Your task to perform on an android device: turn off data saver in the chrome app Image 0: 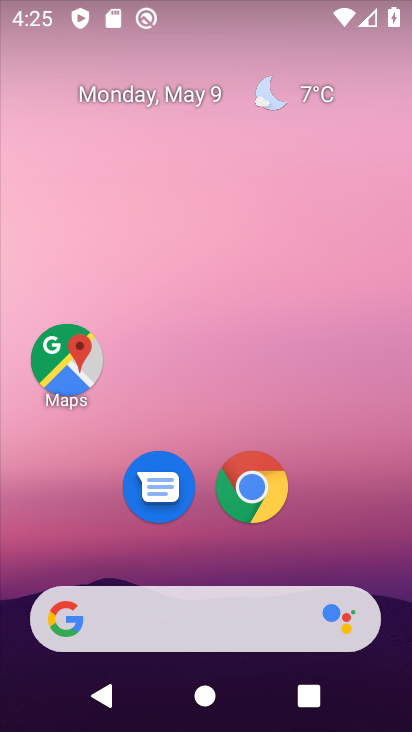
Step 0: drag from (209, 568) to (265, 38)
Your task to perform on an android device: turn off data saver in the chrome app Image 1: 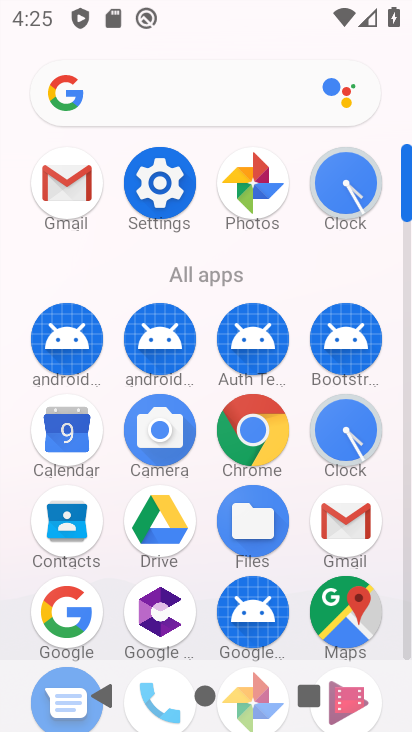
Step 1: click (231, 437)
Your task to perform on an android device: turn off data saver in the chrome app Image 2: 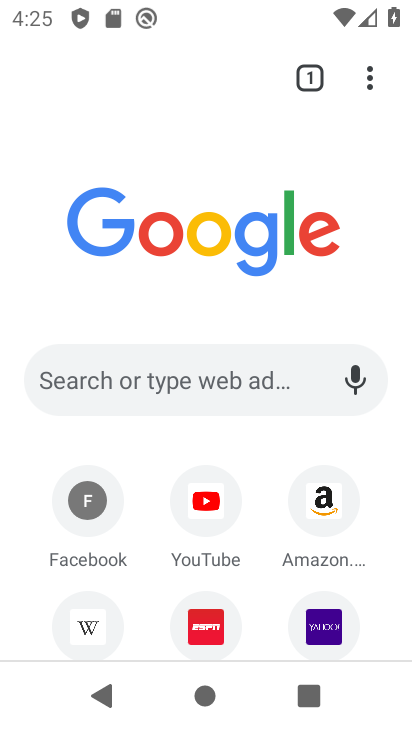
Step 2: click (375, 66)
Your task to perform on an android device: turn off data saver in the chrome app Image 3: 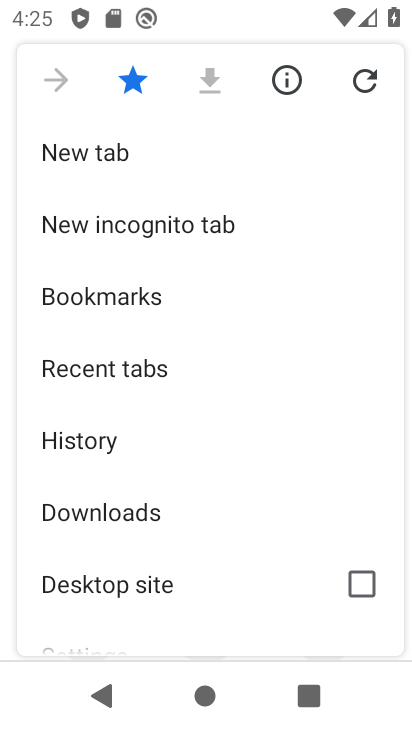
Step 3: drag from (151, 536) to (258, 184)
Your task to perform on an android device: turn off data saver in the chrome app Image 4: 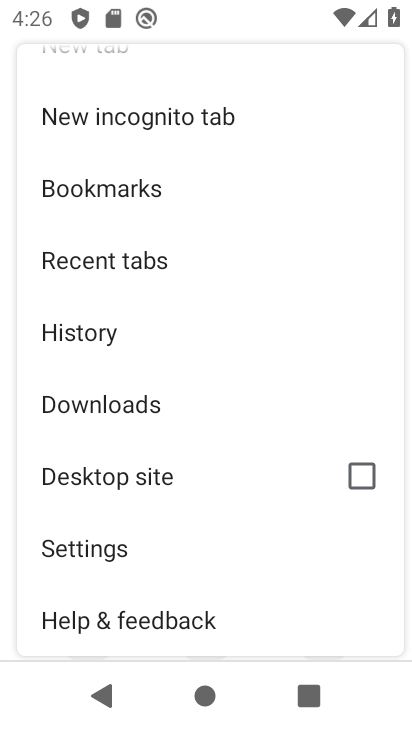
Step 4: click (138, 544)
Your task to perform on an android device: turn off data saver in the chrome app Image 5: 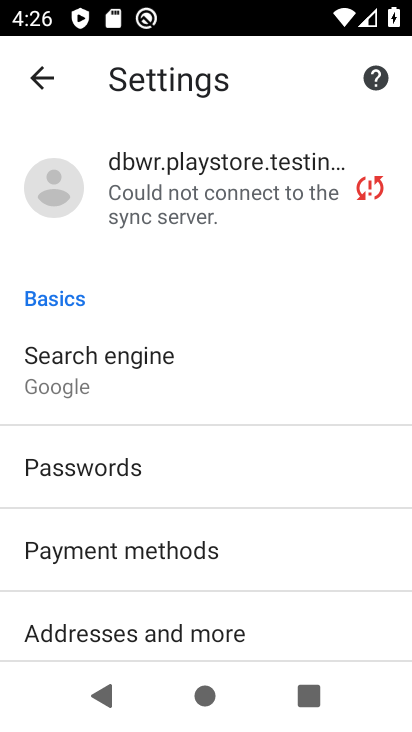
Step 5: drag from (87, 626) to (204, 333)
Your task to perform on an android device: turn off data saver in the chrome app Image 6: 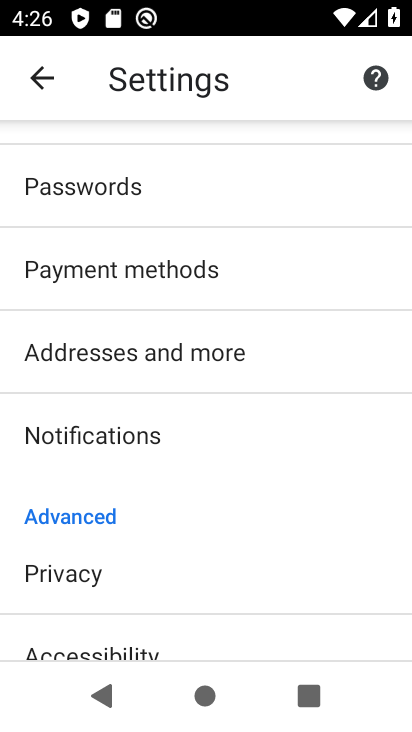
Step 6: drag from (174, 519) to (239, 220)
Your task to perform on an android device: turn off data saver in the chrome app Image 7: 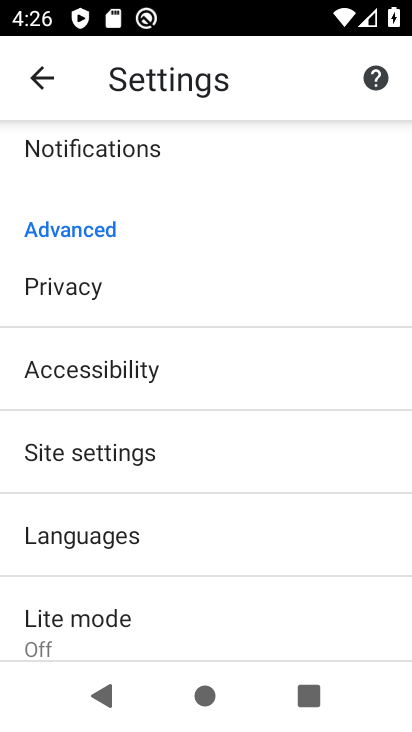
Step 7: click (138, 632)
Your task to perform on an android device: turn off data saver in the chrome app Image 8: 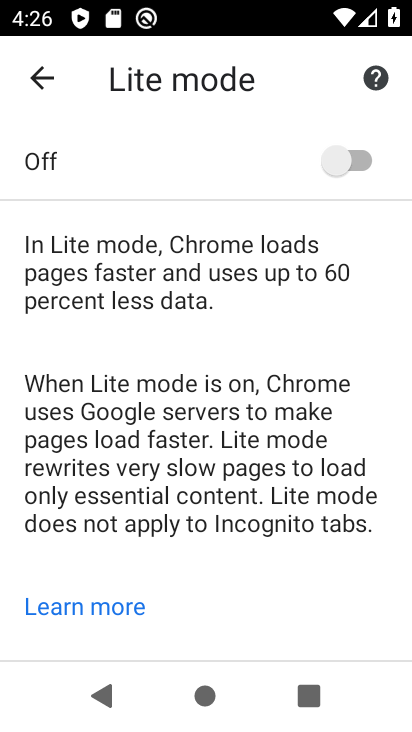
Step 8: task complete